Your task to perform on an android device: When is my next meeting? Image 0: 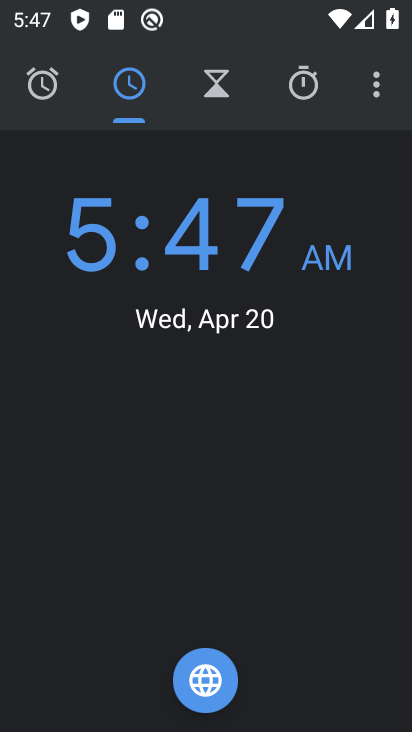
Step 0: press home button
Your task to perform on an android device: When is my next meeting? Image 1: 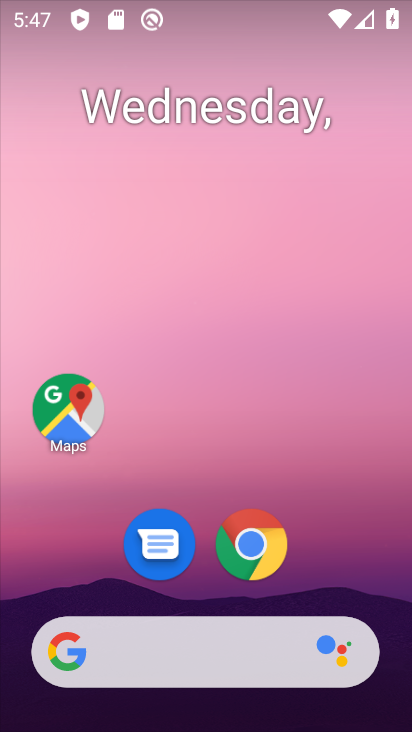
Step 1: drag from (362, 585) to (358, 55)
Your task to perform on an android device: When is my next meeting? Image 2: 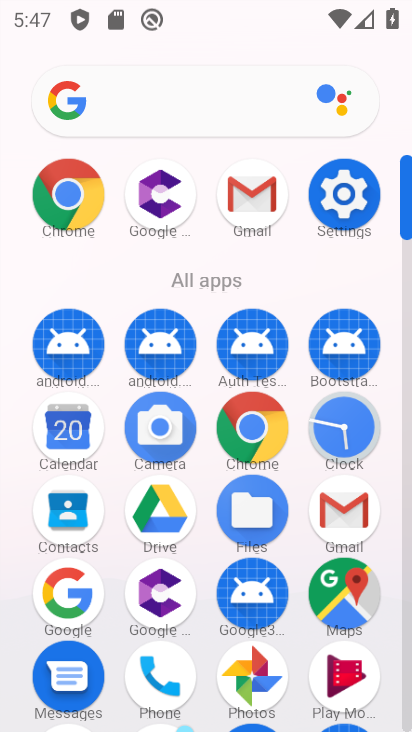
Step 2: click (55, 424)
Your task to perform on an android device: When is my next meeting? Image 3: 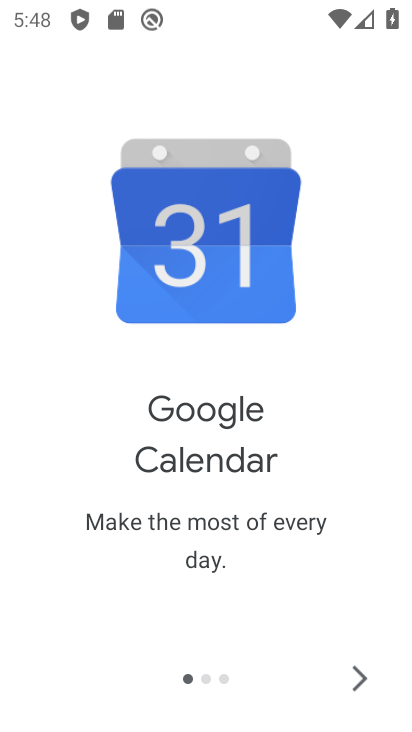
Step 3: click (369, 688)
Your task to perform on an android device: When is my next meeting? Image 4: 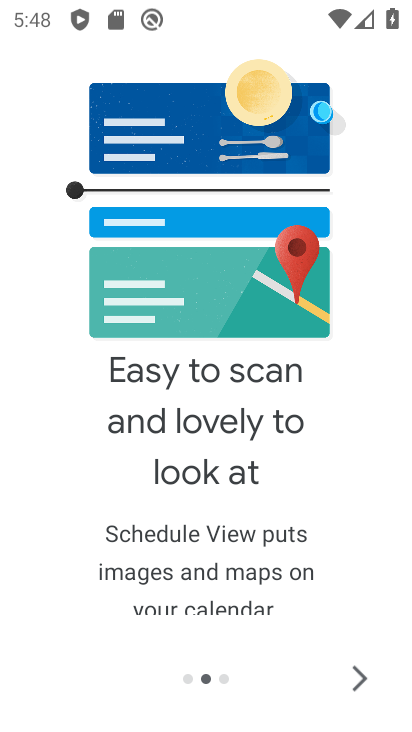
Step 4: click (353, 667)
Your task to perform on an android device: When is my next meeting? Image 5: 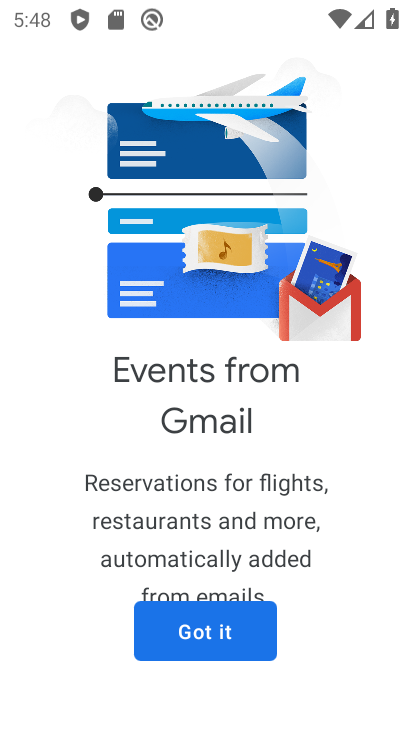
Step 5: click (221, 629)
Your task to perform on an android device: When is my next meeting? Image 6: 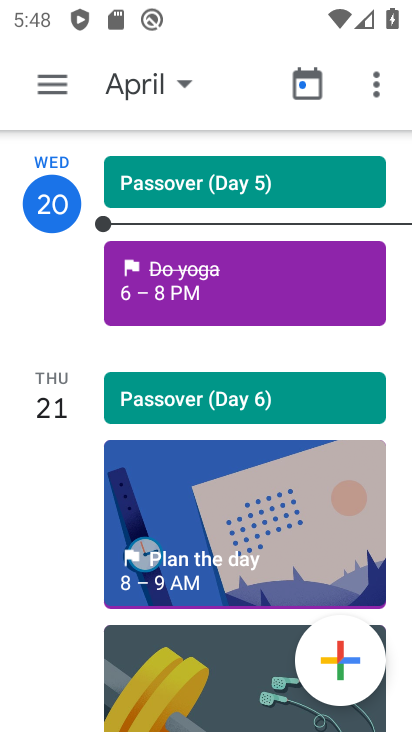
Step 6: task complete